Your task to perform on an android device: Search for Mexican restaurants on Maps Image 0: 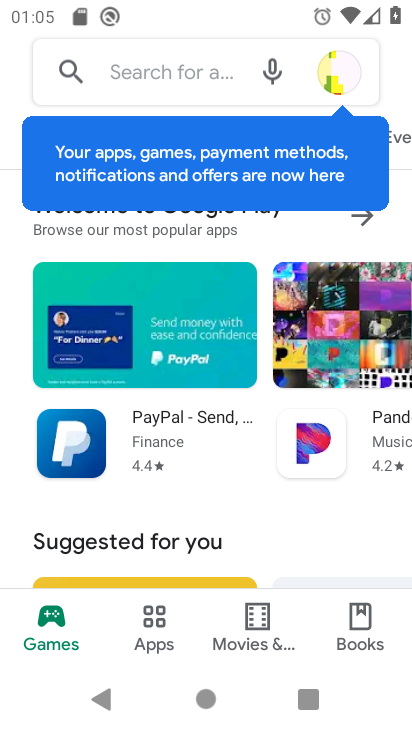
Step 0: press home button
Your task to perform on an android device: Search for Mexican restaurants on Maps Image 1: 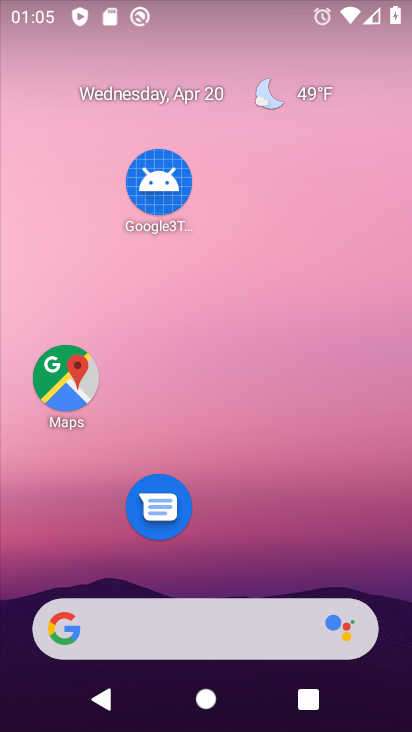
Step 1: click (57, 391)
Your task to perform on an android device: Search for Mexican restaurants on Maps Image 2: 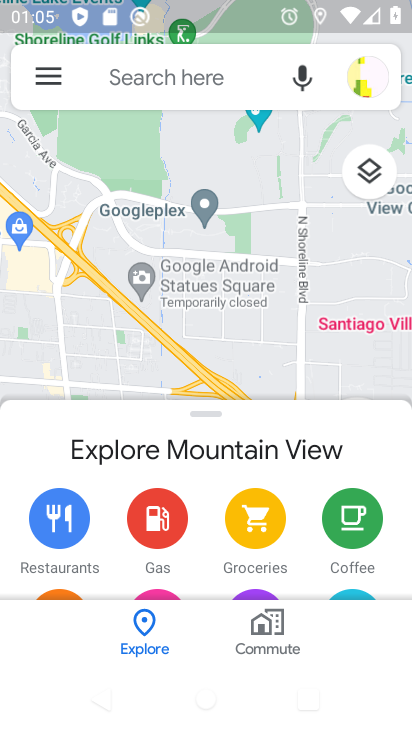
Step 2: click (199, 80)
Your task to perform on an android device: Search for Mexican restaurants on Maps Image 3: 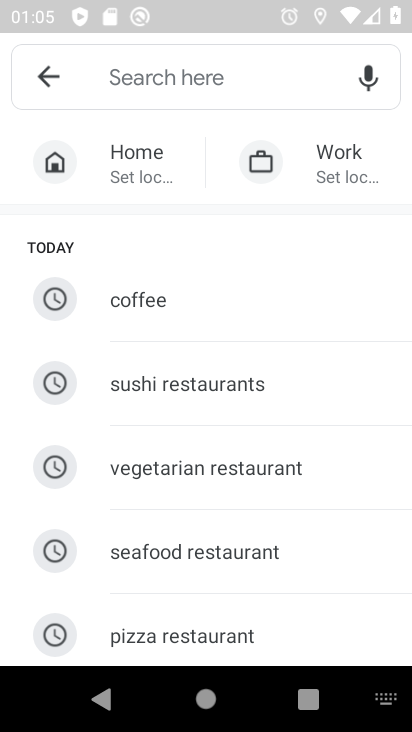
Step 3: type "Mexican restaurants"
Your task to perform on an android device: Search for Mexican restaurants on Maps Image 4: 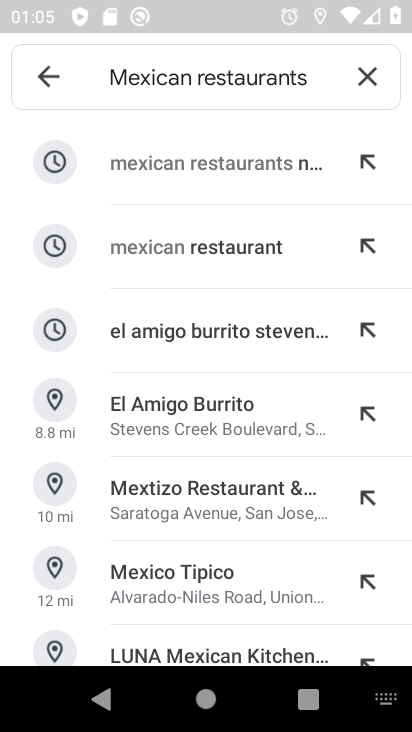
Step 4: click (215, 247)
Your task to perform on an android device: Search for Mexican restaurants on Maps Image 5: 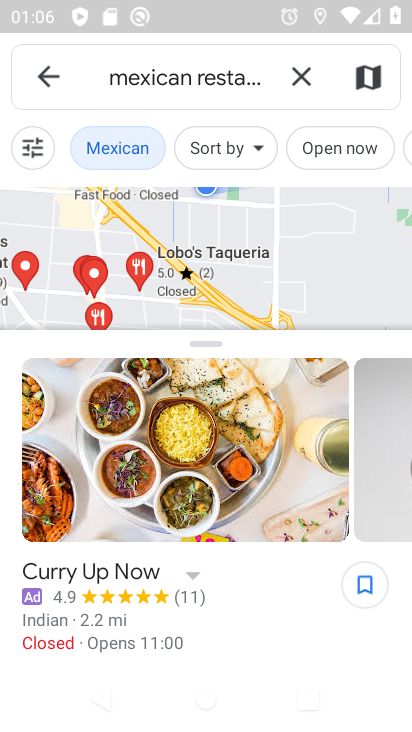
Step 5: task complete